Your task to perform on an android device: turn notification dots on Image 0: 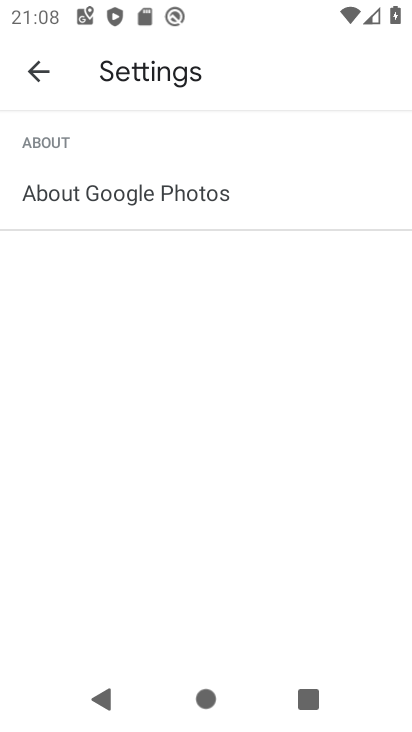
Step 0: press home button
Your task to perform on an android device: turn notification dots on Image 1: 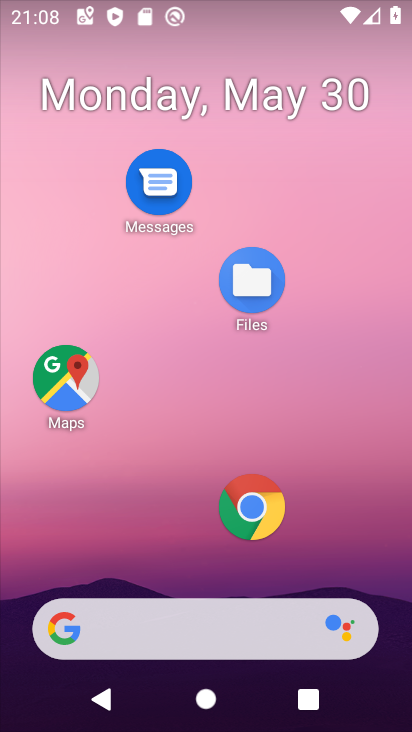
Step 1: drag from (194, 525) to (410, 119)
Your task to perform on an android device: turn notification dots on Image 2: 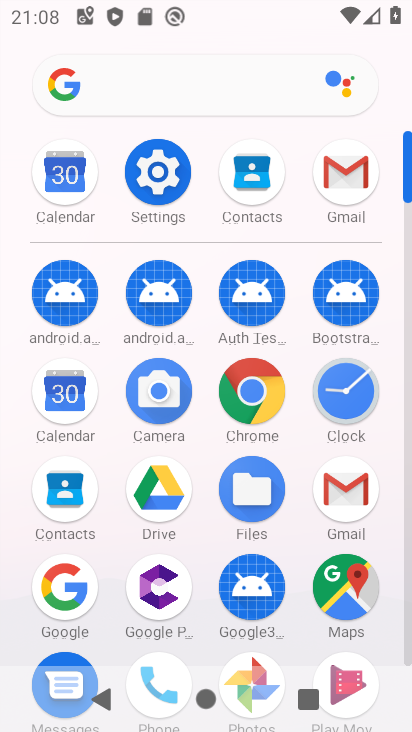
Step 2: click (173, 187)
Your task to perform on an android device: turn notification dots on Image 3: 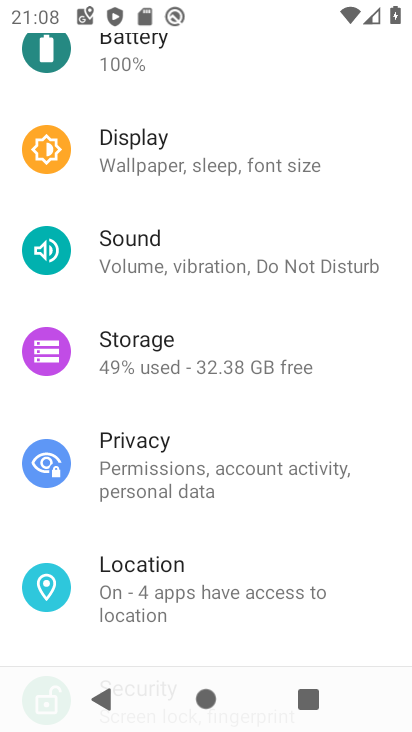
Step 3: drag from (223, 429) to (221, 627)
Your task to perform on an android device: turn notification dots on Image 4: 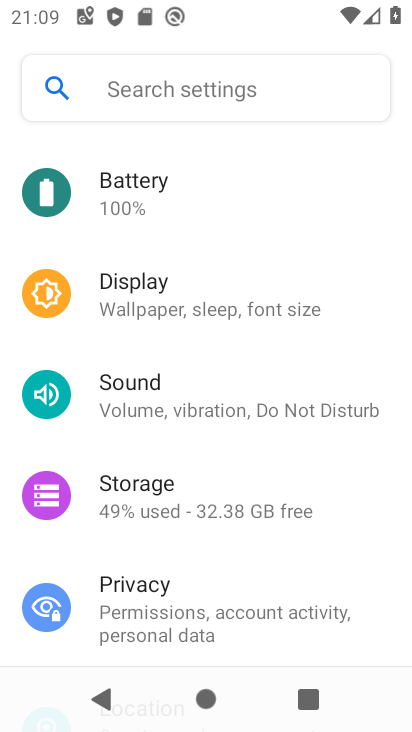
Step 4: drag from (218, 309) to (221, 511)
Your task to perform on an android device: turn notification dots on Image 5: 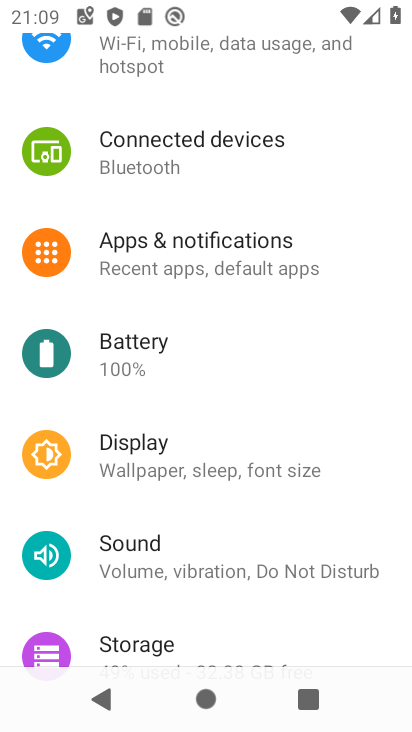
Step 5: click (234, 264)
Your task to perform on an android device: turn notification dots on Image 6: 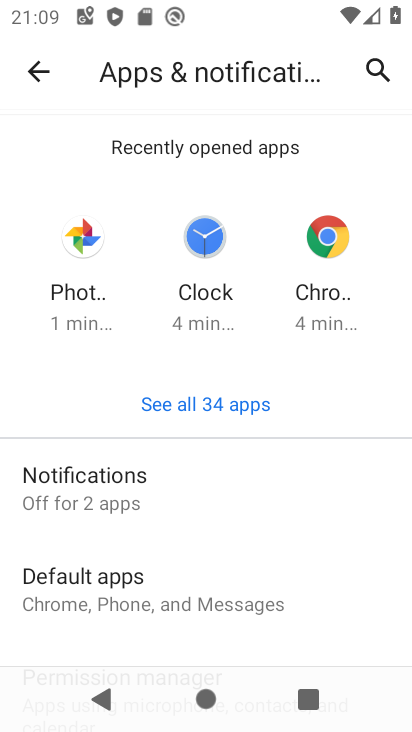
Step 6: click (153, 500)
Your task to perform on an android device: turn notification dots on Image 7: 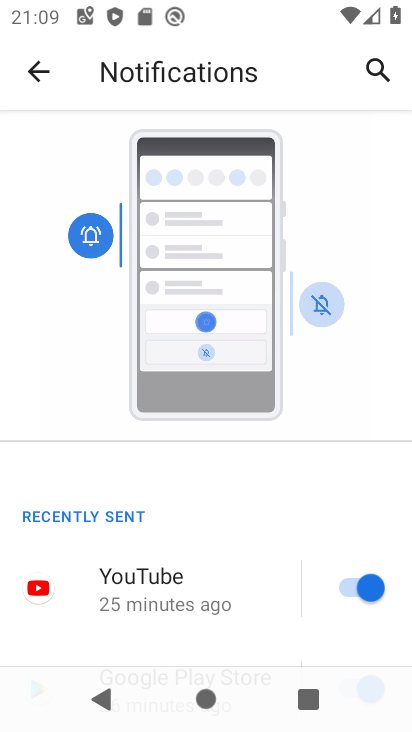
Step 7: drag from (185, 545) to (216, 234)
Your task to perform on an android device: turn notification dots on Image 8: 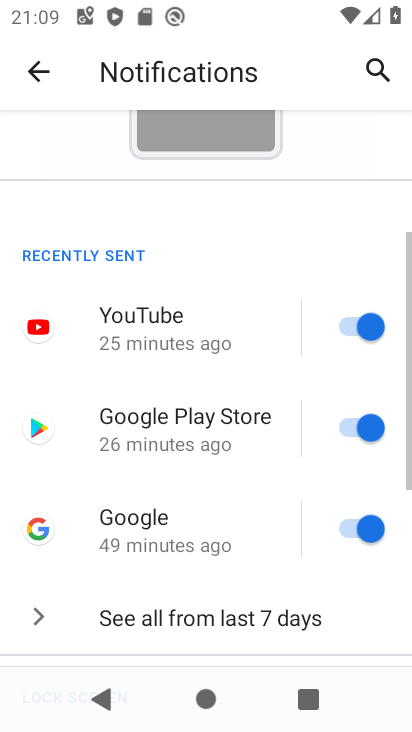
Step 8: drag from (147, 533) to (155, 384)
Your task to perform on an android device: turn notification dots on Image 9: 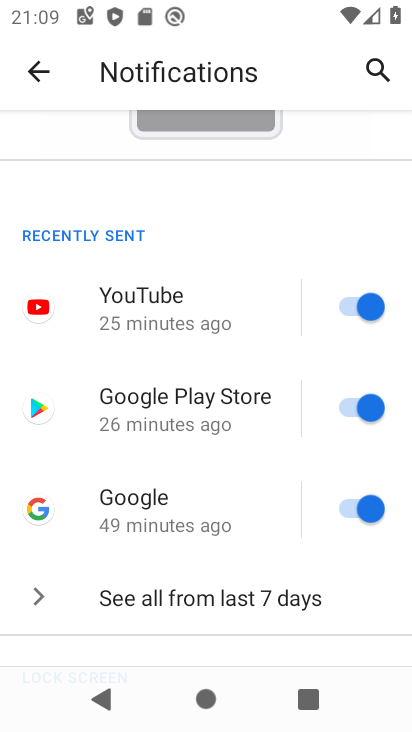
Step 9: drag from (170, 455) to (190, 348)
Your task to perform on an android device: turn notification dots on Image 10: 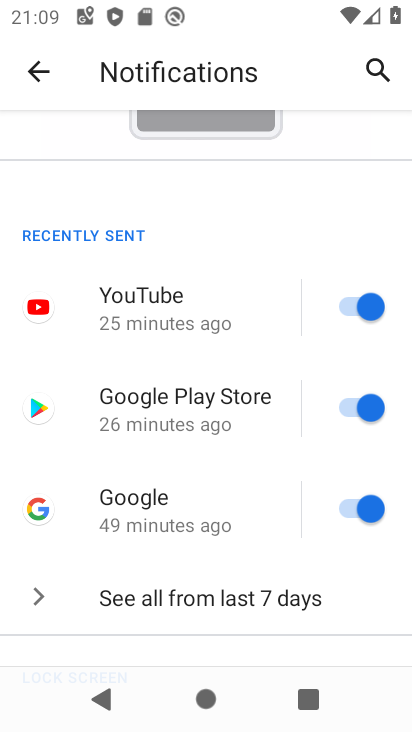
Step 10: drag from (153, 560) to (190, 272)
Your task to perform on an android device: turn notification dots on Image 11: 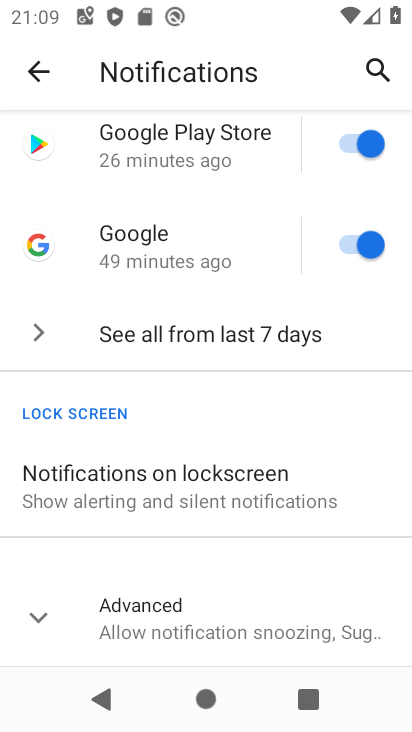
Step 11: click (142, 610)
Your task to perform on an android device: turn notification dots on Image 12: 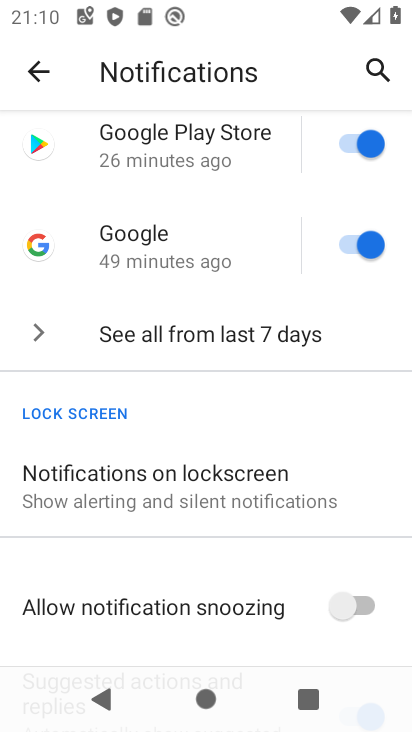
Step 12: drag from (161, 557) to (203, 263)
Your task to perform on an android device: turn notification dots on Image 13: 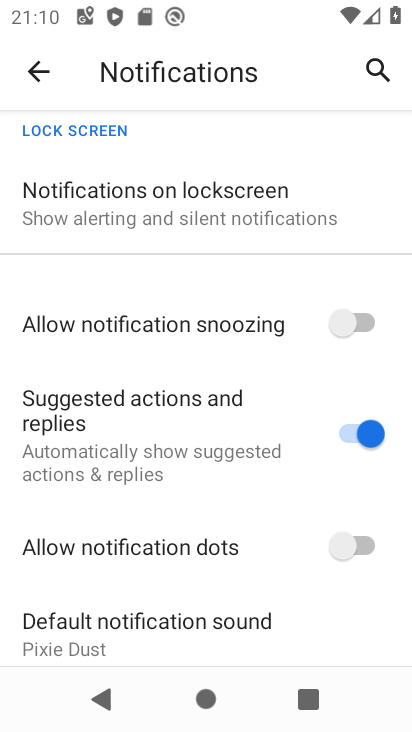
Step 13: click (366, 548)
Your task to perform on an android device: turn notification dots on Image 14: 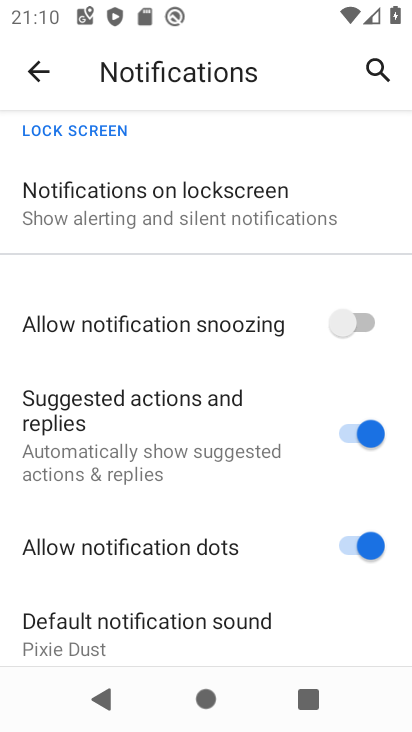
Step 14: task complete